Your task to perform on an android device: Go to wifi settings Image 0: 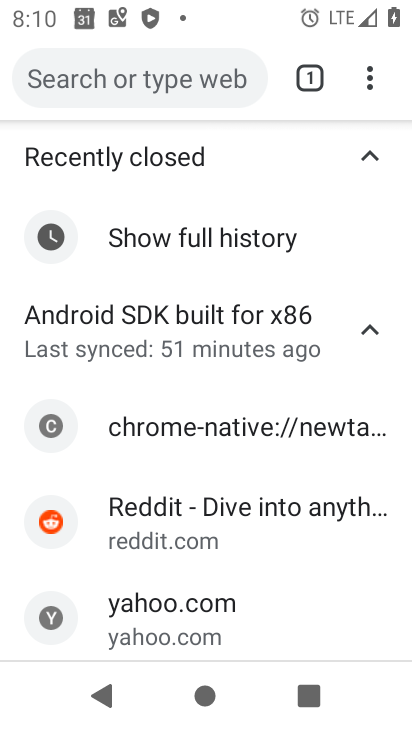
Step 0: press home button
Your task to perform on an android device: Go to wifi settings Image 1: 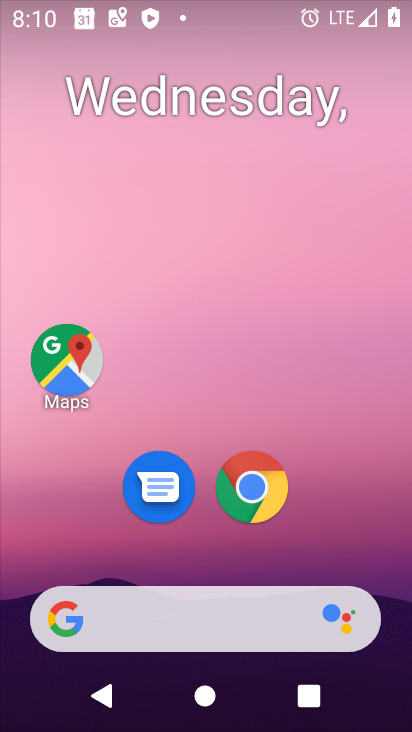
Step 1: drag from (335, 556) to (324, 3)
Your task to perform on an android device: Go to wifi settings Image 2: 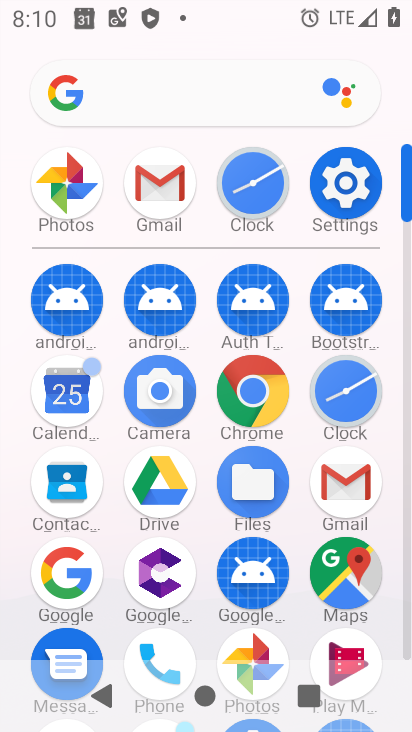
Step 2: click (347, 167)
Your task to perform on an android device: Go to wifi settings Image 3: 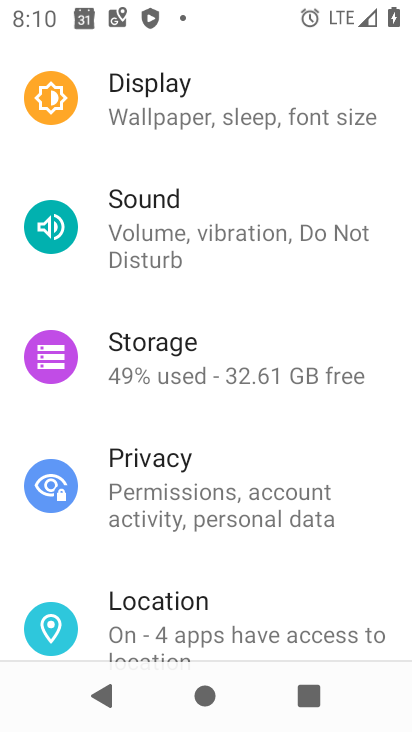
Step 3: drag from (364, 105) to (375, 576)
Your task to perform on an android device: Go to wifi settings Image 4: 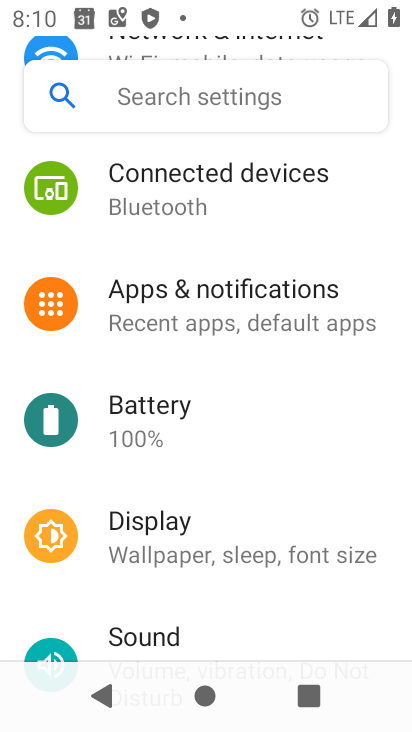
Step 4: drag from (327, 176) to (340, 552)
Your task to perform on an android device: Go to wifi settings Image 5: 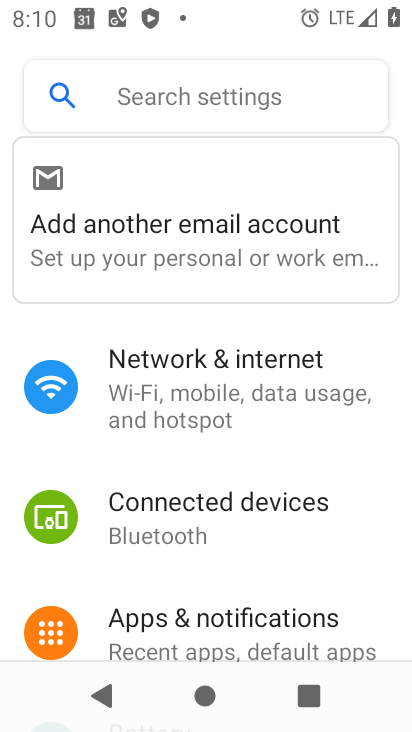
Step 5: click (173, 383)
Your task to perform on an android device: Go to wifi settings Image 6: 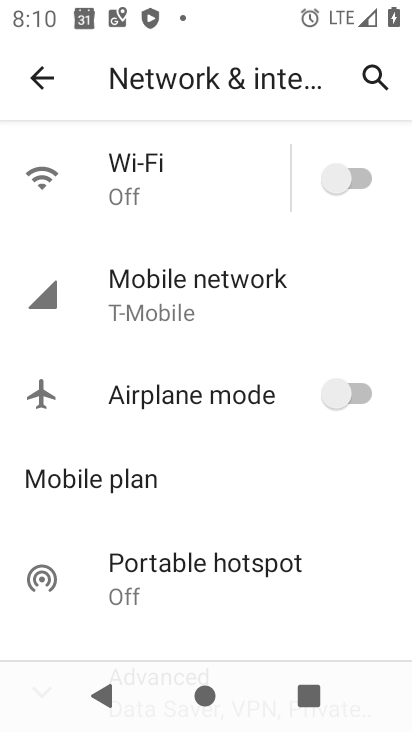
Step 6: click (90, 199)
Your task to perform on an android device: Go to wifi settings Image 7: 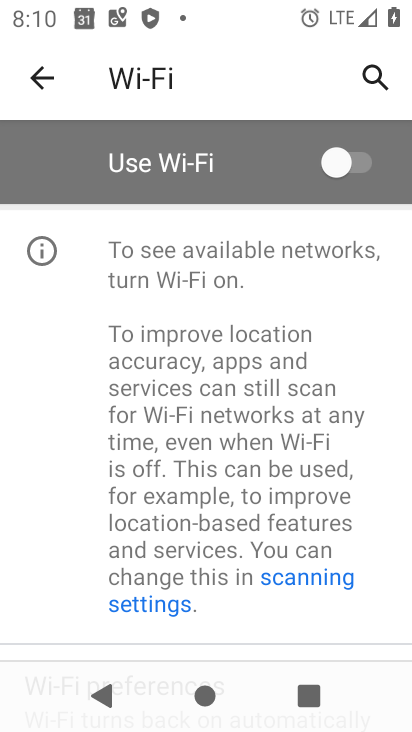
Step 7: task complete